Your task to perform on an android device: toggle notification dots Image 0: 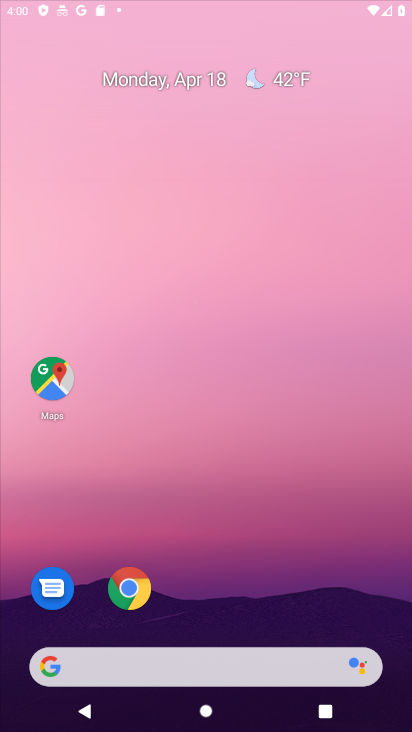
Step 0: drag from (251, 215) to (252, 177)
Your task to perform on an android device: toggle notification dots Image 1: 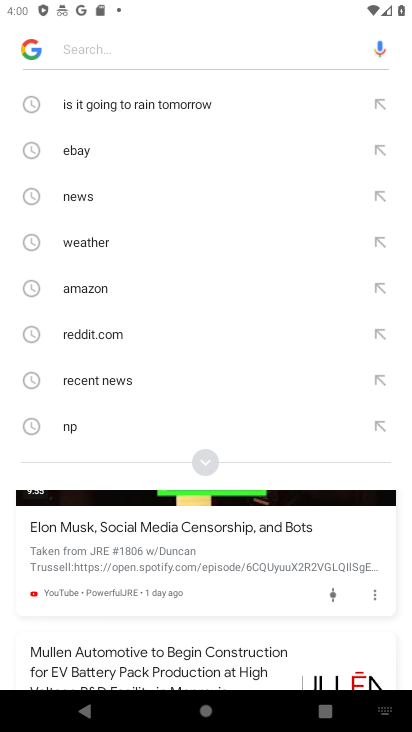
Step 1: press home button
Your task to perform on an android device: toggle notification dots Image 2: 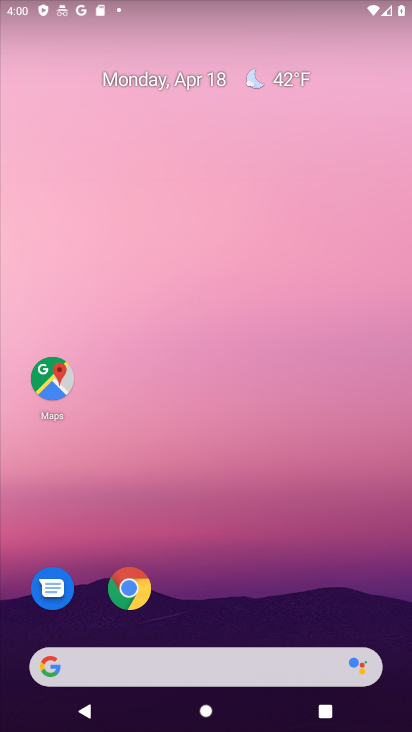
Step 2: drag from (256, 590) to (266, 265)
Your task to perform on an android device: toggle notification dots Image 3: 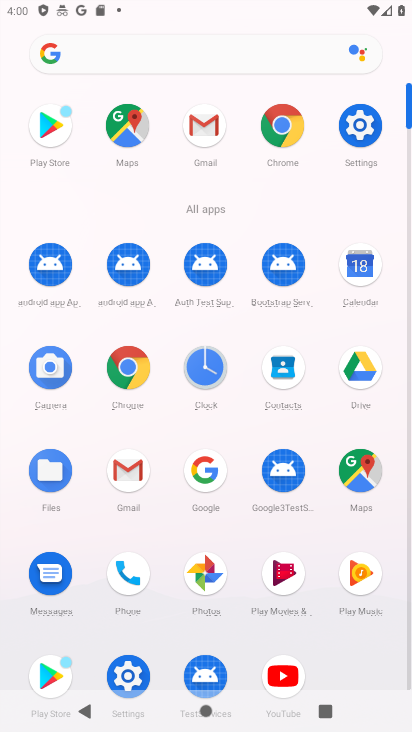
Step 3: click (139, 671)
Your task to perform on an android device: toggle notification dots Image 4: 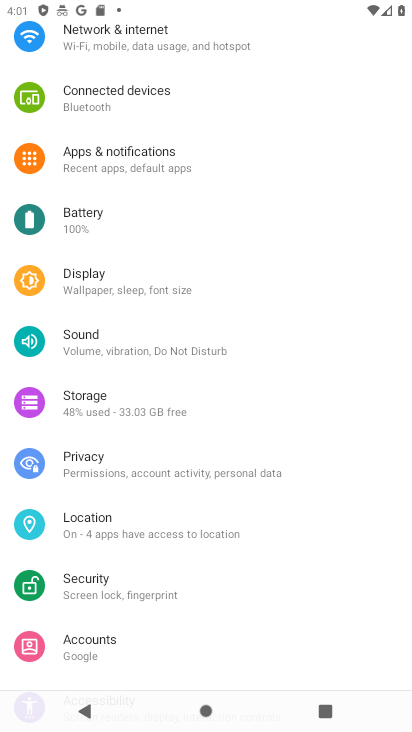
Step 4: click (135, 160)
Your task to perform on an android device: toggle notification dots Image 5: 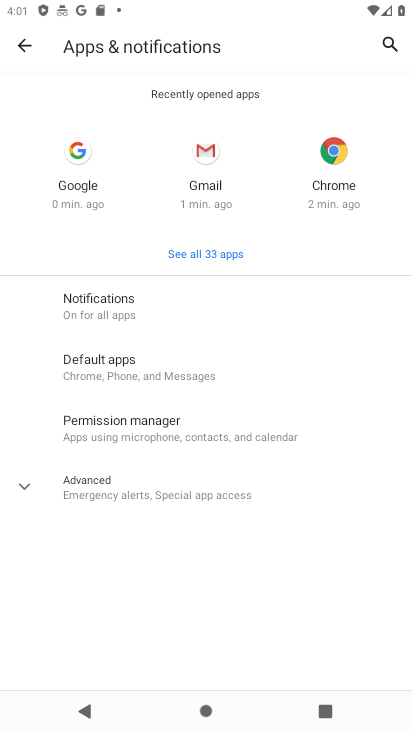
Step 5: click (132, 307)
Your task to perform on an android device: toggle notification dots Image 6: 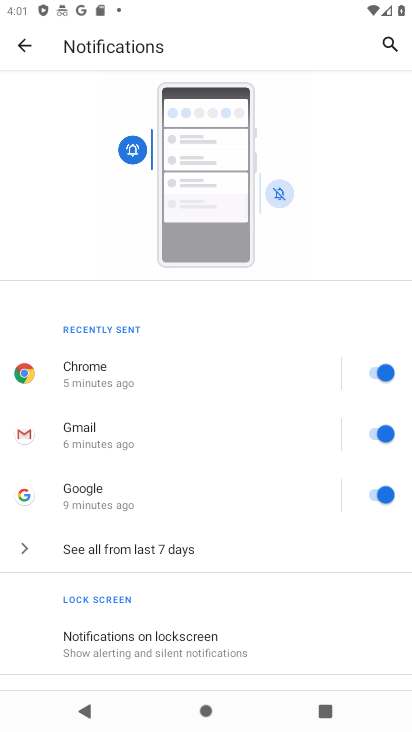
Step 6: drag from (189, 646) to (228, 423)
Your task to perform on an android device: toggle notification dots Image 7: 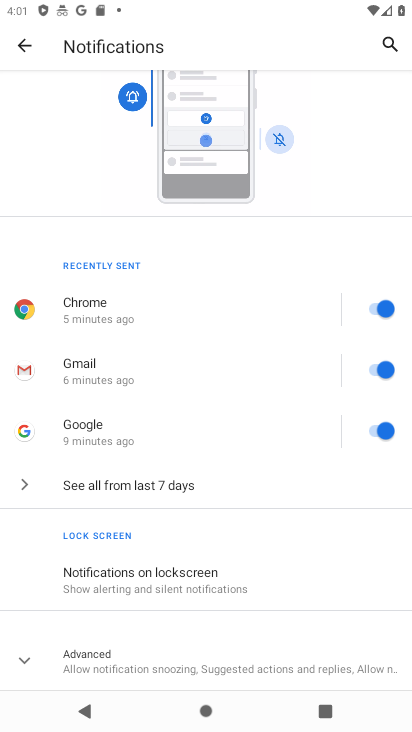
Step 7: click (19, 653)
Your task to perform on an android device: toggle notification dots Image 8: 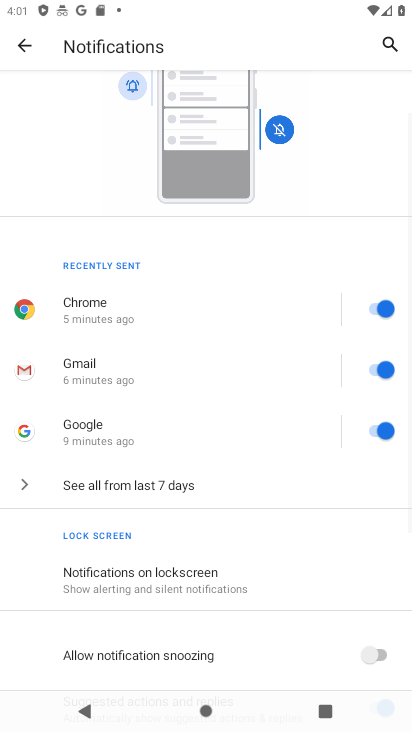
Step 8: drag from (94, 605) to (129, 301)
Your task to perform on an android device: toggle notification dots Image 9: 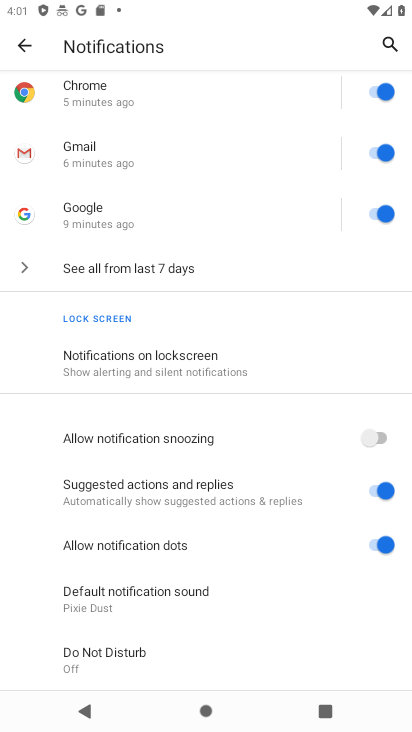
Step 9: click (370, 545)
Your task to perform on an android device: toggle notification dots Image 10: 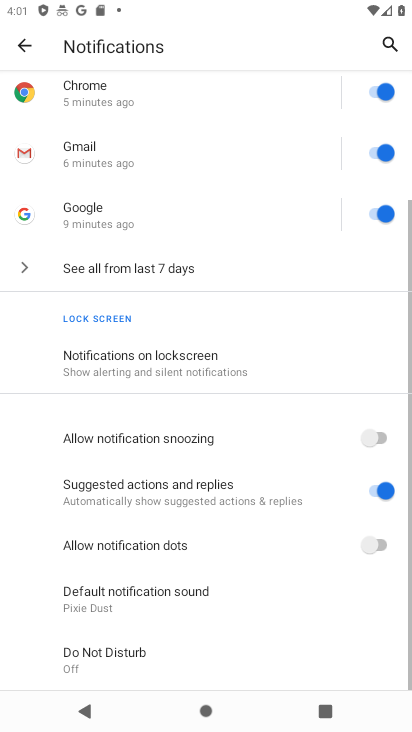
Step 10: task complete